Your task to perform on an android device: When is my next meeting? Image 0: 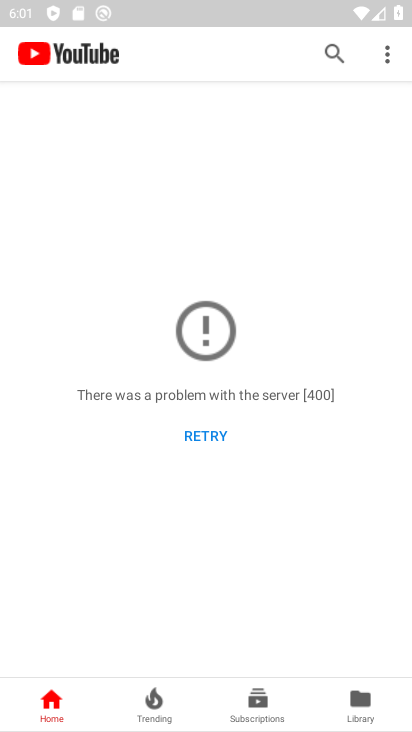
Step 0: press back button
Your task to perform on an android device: When is my next meeting? Image 1: 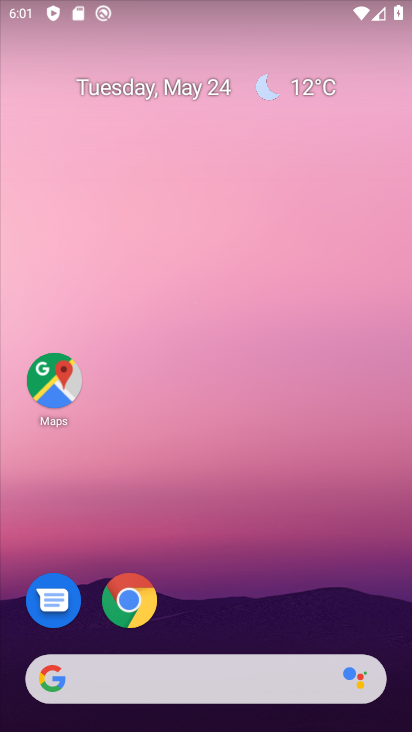
Step 1: drag from (258, 660) to (367, 13)
Your task to perform on an android device: When is my next meeting? Image 2: 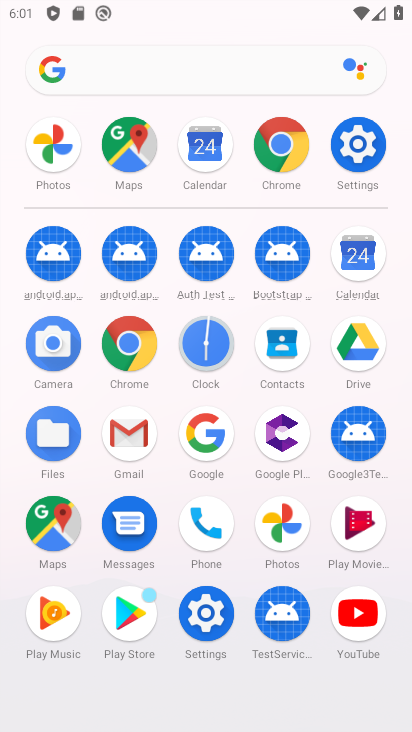
Step 2: click (362, 262)
Your task to perform on an android device: When is my next meeting? Image 3: 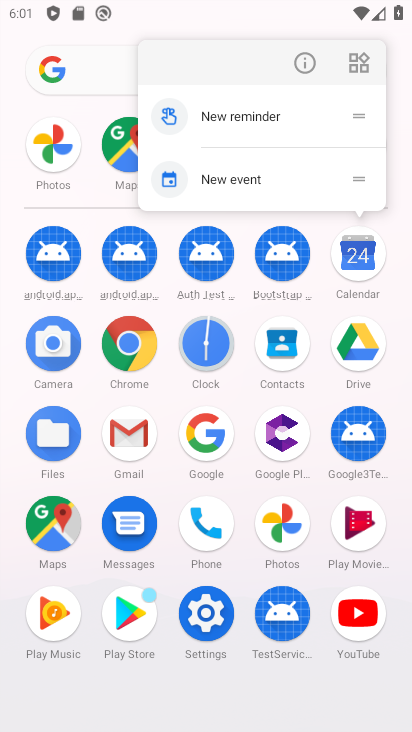
Step 3: click (372, 259)
Your task to perform on an android device: When is my next meeting? Image 4: 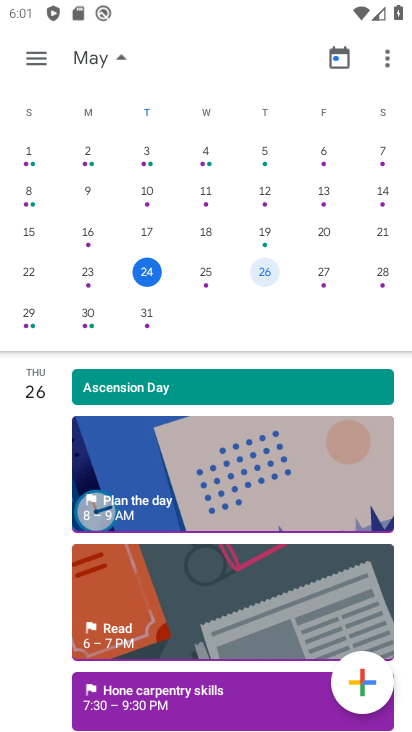
Step 4: click (193, 269)
Your task to perform on an android device: When is my next meeting? Image 5: 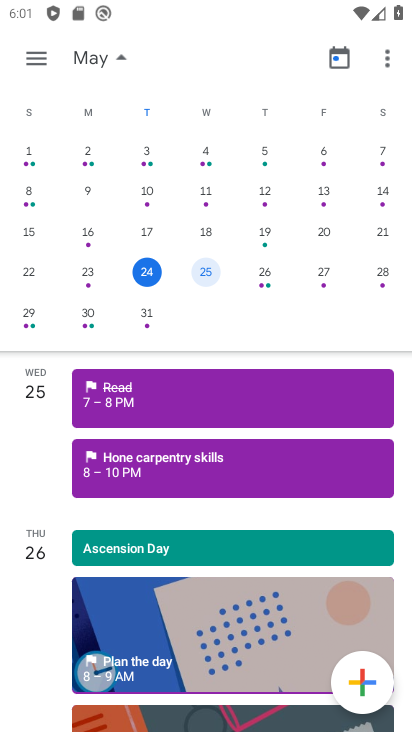
Step 5: task complete